Your task to perform on an android device: turn on data saver in the chrome app Image 0: 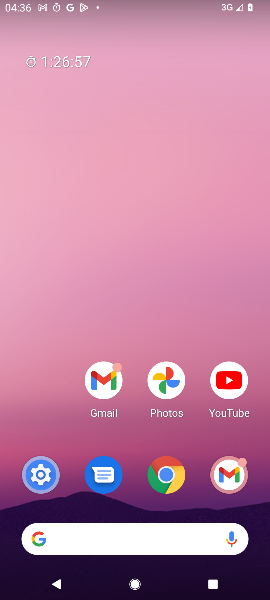
Step 0: press home button
Your task to perform on an android device: turn on data saver in the chrome app Image 1: 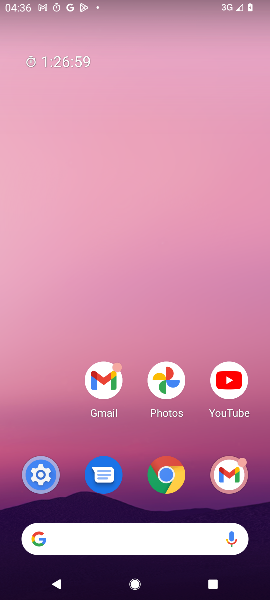
Step 1: drag from (63, 436) to (62, 117)
Your task to perform on an android device: turn on data saver in the chrome app Image 2: 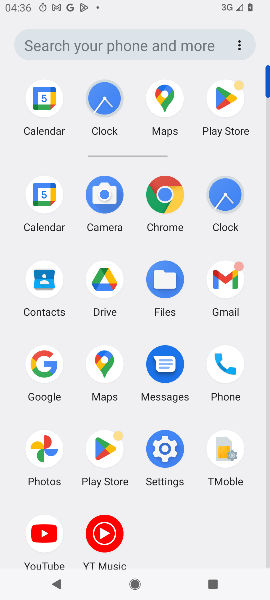
Step 2: click (170, 192)
Your task to perform on an android device: turn on data saver in the chrome app Image 3: 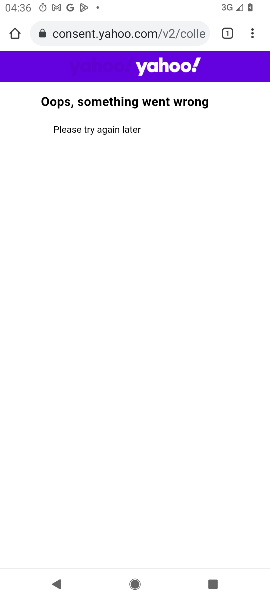
Step 3: click (251, 35)
Your task to perform on an android device: turn on data saver in the chrome app Image 4: 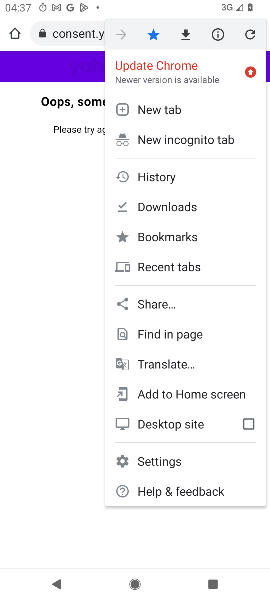
Step 4: click (185, 462)
Your task to perform on an android device: turn on data saver in the chrome app Image 5: 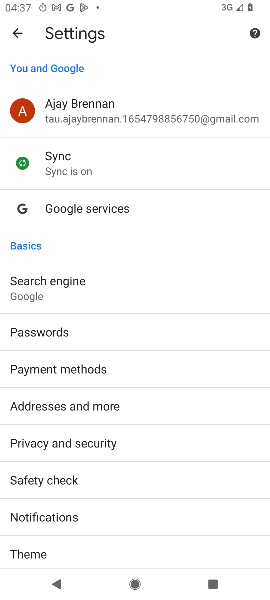
Step 5: drag from (198, 454) to (210, 375)
Your task to perform on an android device: turn on data saver in the chrome app Image 6: 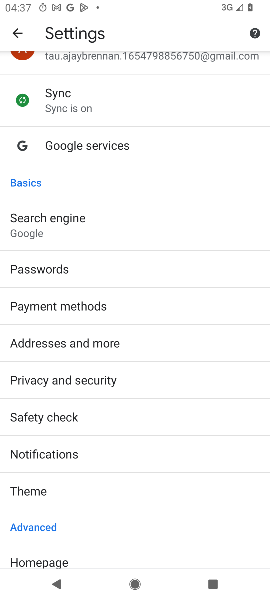
Step 6: drag from (194, 478) to (205, 357)
Your task to perform on an android device: turn on data saver in the chrome app Image 7: 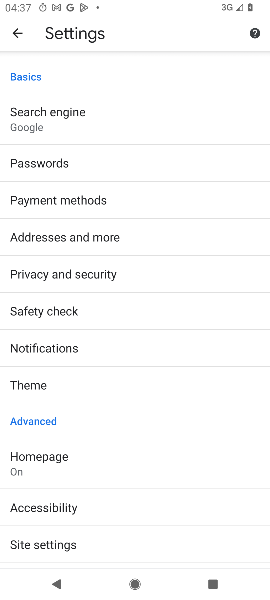
Step 7: drag from (179, 454) to (190, 349)
Your task to perform on an android device: turn on data saver in the chrome app Image 8: 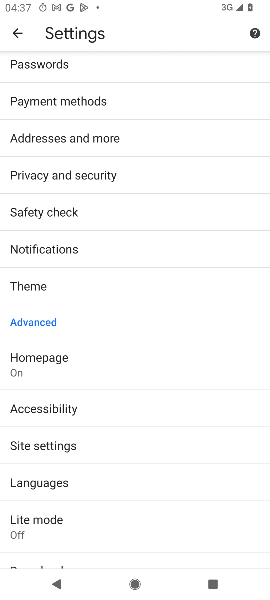
Step 8: drag from (181, 458) to (197, 343)
Your task to perform on an android device: turn on data saver in the chrome app Image 9: 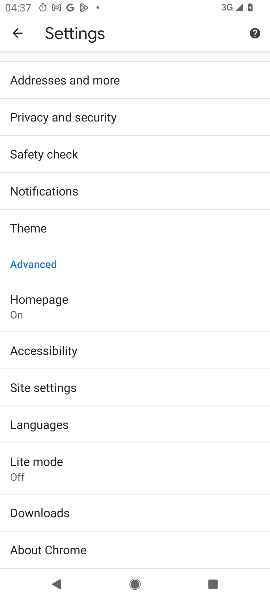
Step 9: drag from (180, 457) to (184, 366)
Your task to perform on an android device: turn on data saver in the chrome app Image 10: 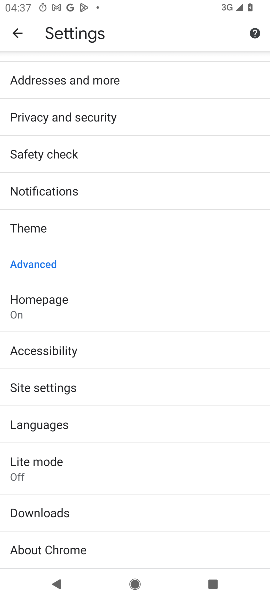
Step 10: click (62, 472)
Your task to perform on an android device: turn on data saver in the chrome app Image 11: 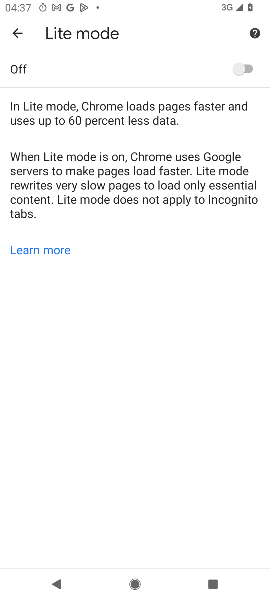
Step 11: click (239, 72)
Your task to perform on an android device: turn on data saver in the chrome app Image 12: 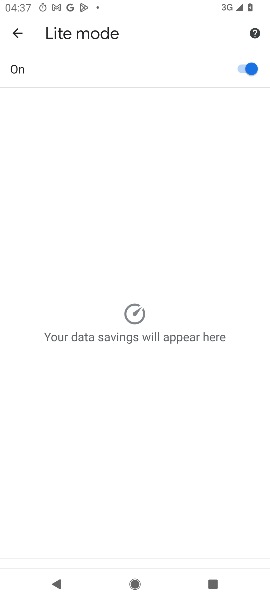
Step 12: task complete